Your task to perform on an android device: Open Wikipedia Image 0: 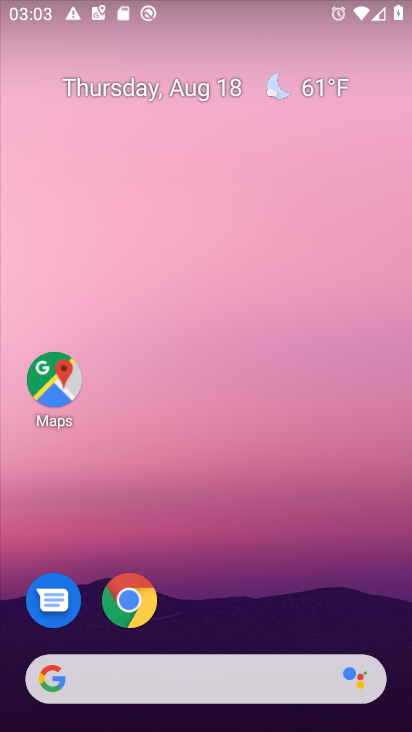
Step 0: press home button
Your task to perform on an android device: Open Wikipedia Image 1: 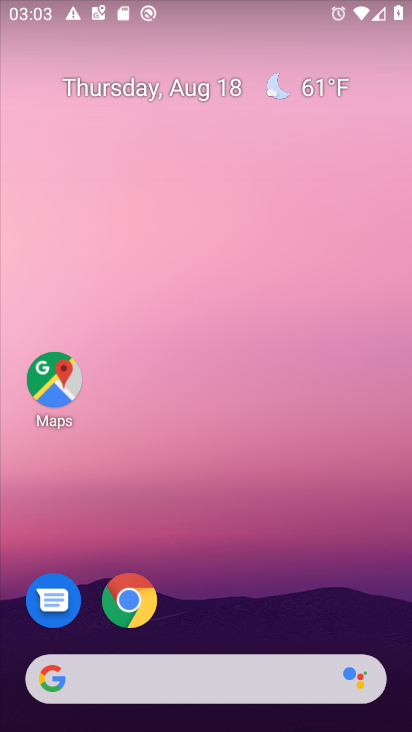
Step 1: click (40, 689)
Your task to perform on an android device: Open Wikipedia Image 2: 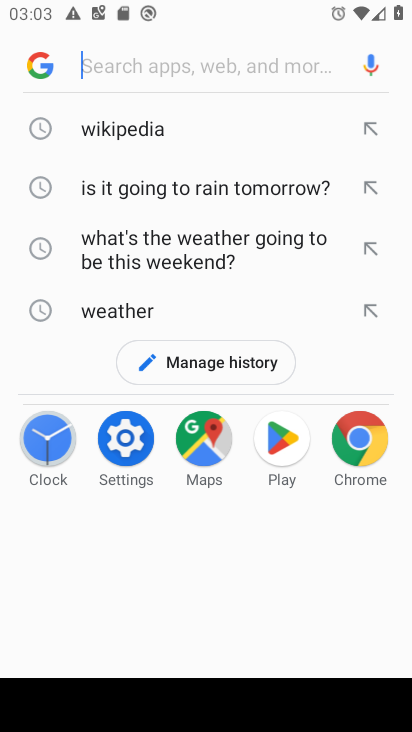
Step 2: click (95, 134)
Your task to perform on an android device: Open Wikipedia Image 3: 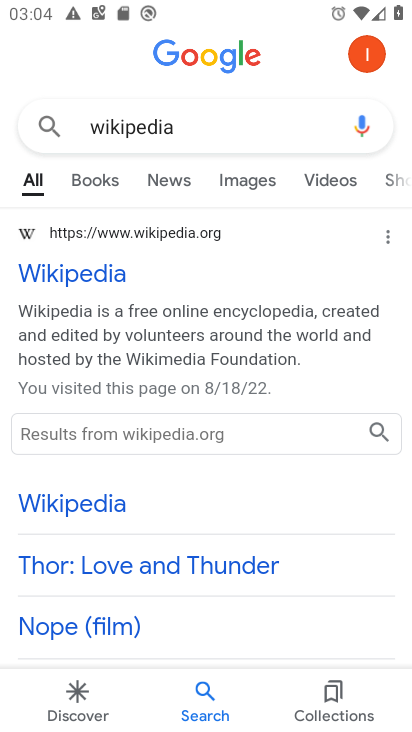
Step 3: click (95, 291)
Your task to perform on an android device: Open Wikipedia Image 4: 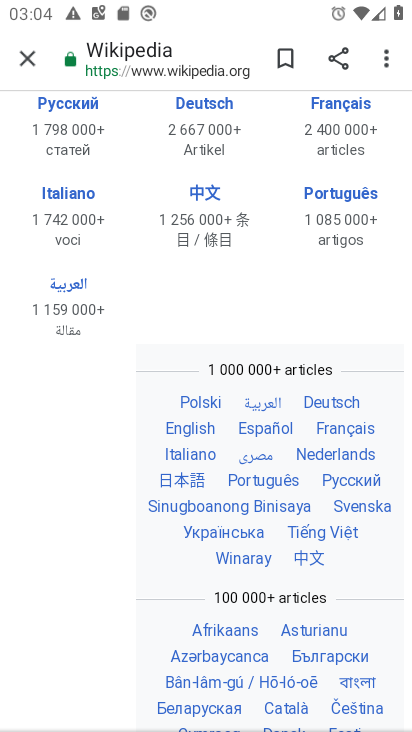
Step 4: task complete